Your task to perform on an android device: all mails in gmail Image 0: 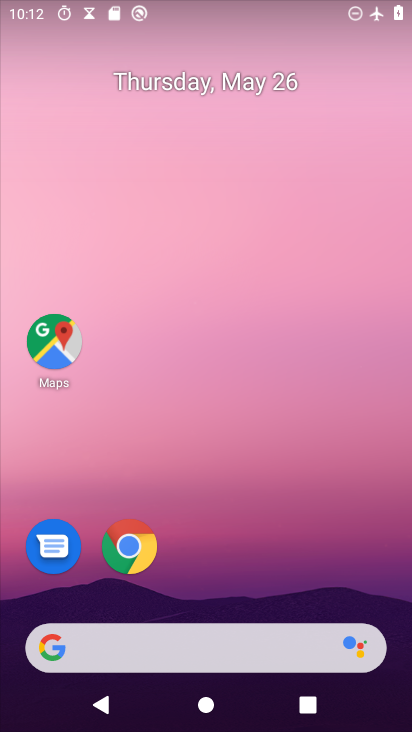
Step 0: drag from (342, 555) to (344, 77)
Your task to perform on an android device: all mails in gmail Image 1: 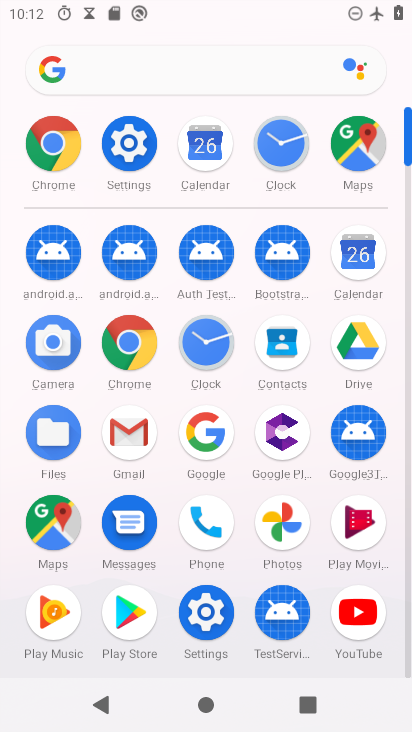
Step 1: click (143, 438)
Your task to perform on an android device: all mails in gmail Image 2: 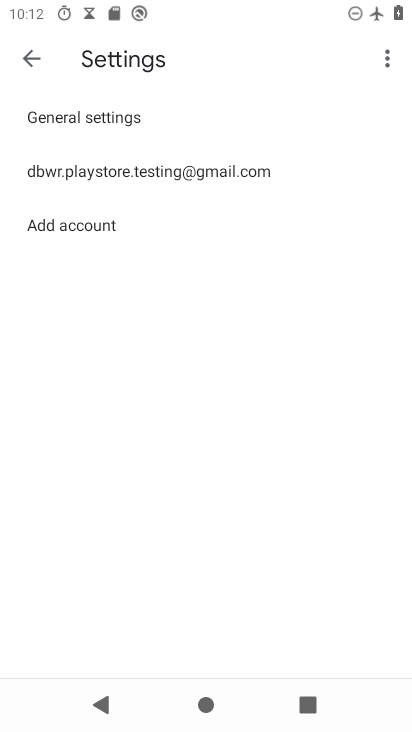
Step 2: click (266, 167)
Your task to perform on an android device: all mails in gmail Image 3: 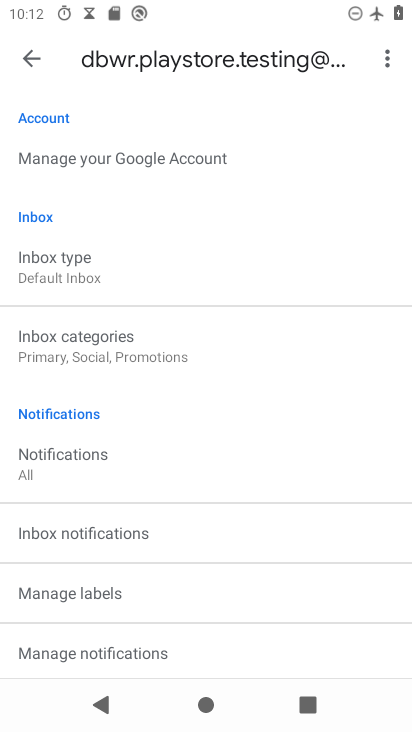
Step 3: click (34, 61)
Your task to perform on an android device: all mails in gmail Image 4: 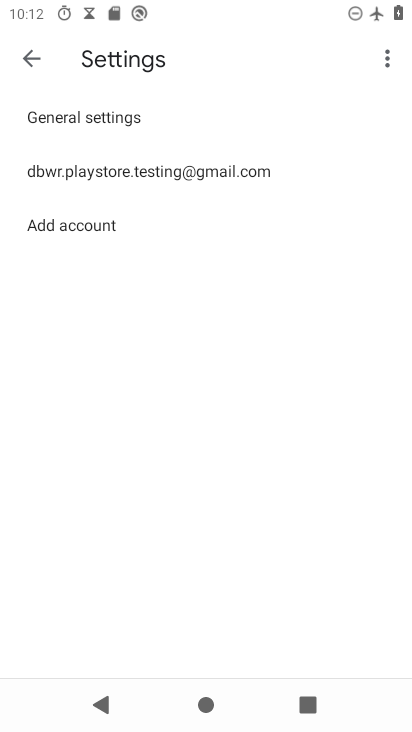
Step 4: click (33, 60)
Your task to perform on an android device: all mails in gmail Image 5: 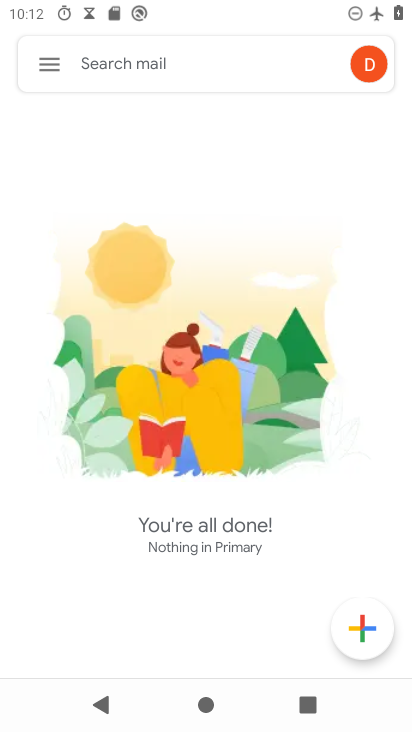
Step 5: click (33, 60)
Your task to perform on an android device: all mails in gmail Image 6: 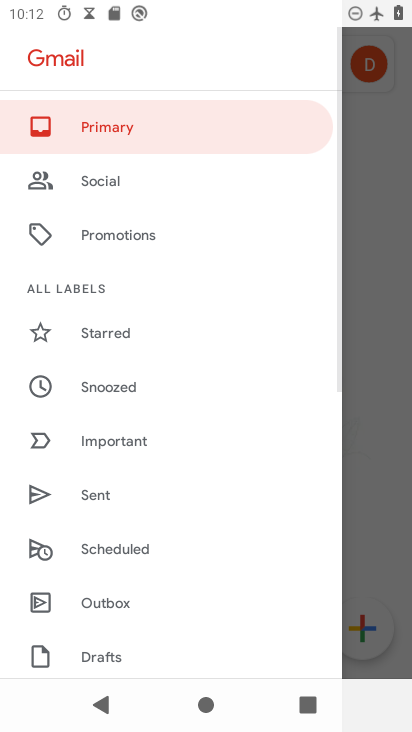
Step 6: drag from (166, 602) to (235, 205)
Your task to perform on an android device: all mails in gmail Image 7: 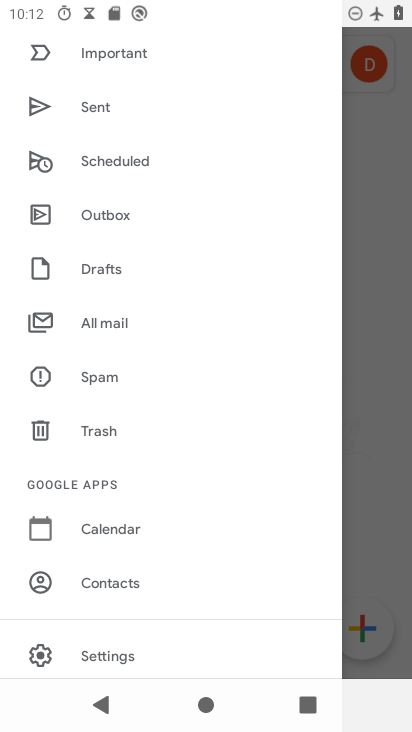
Step 7: drag from (183, 575) to (185, 300)
Your task to perform on an android device: all mails in gmail Image 8: 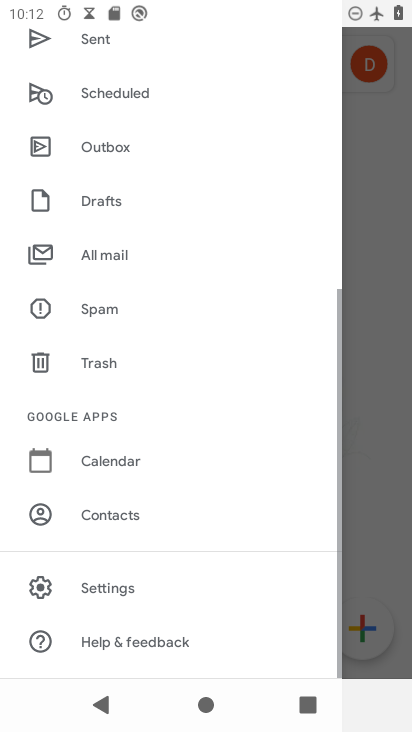
Step 8: click (162, 248)
Your task to perform on an android device: all mails in gmail Image 9: 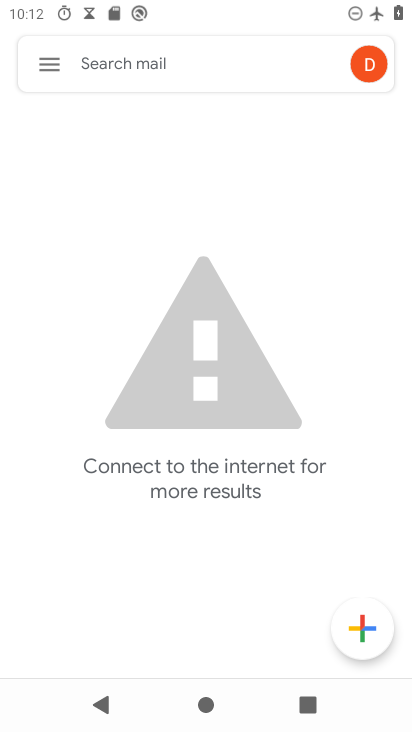
Step 9: task complete